Your task to perform on an android device: open app "Nova Launcher" Image 0: 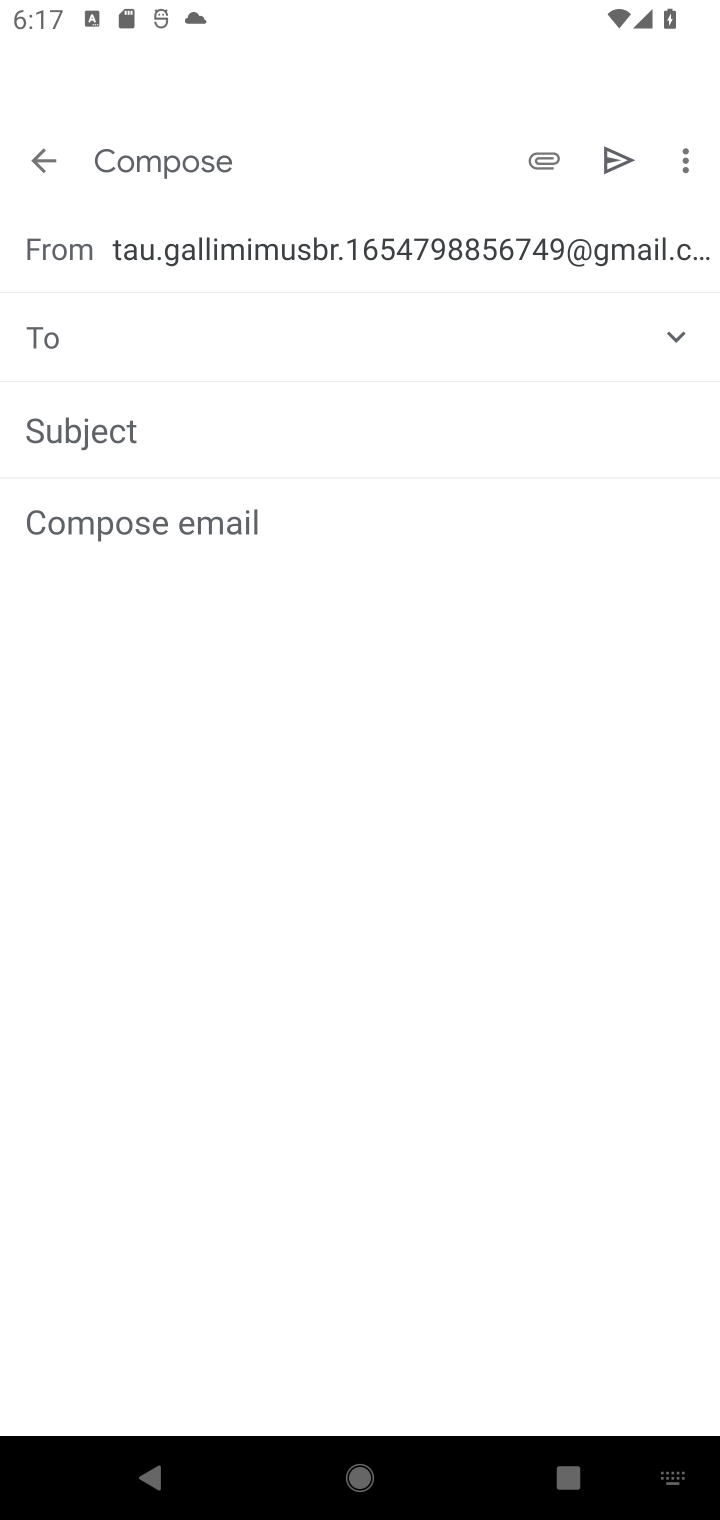
Step 0: press home button
Your task to perform on an android device: open app "Nova Launcher" Image 1: 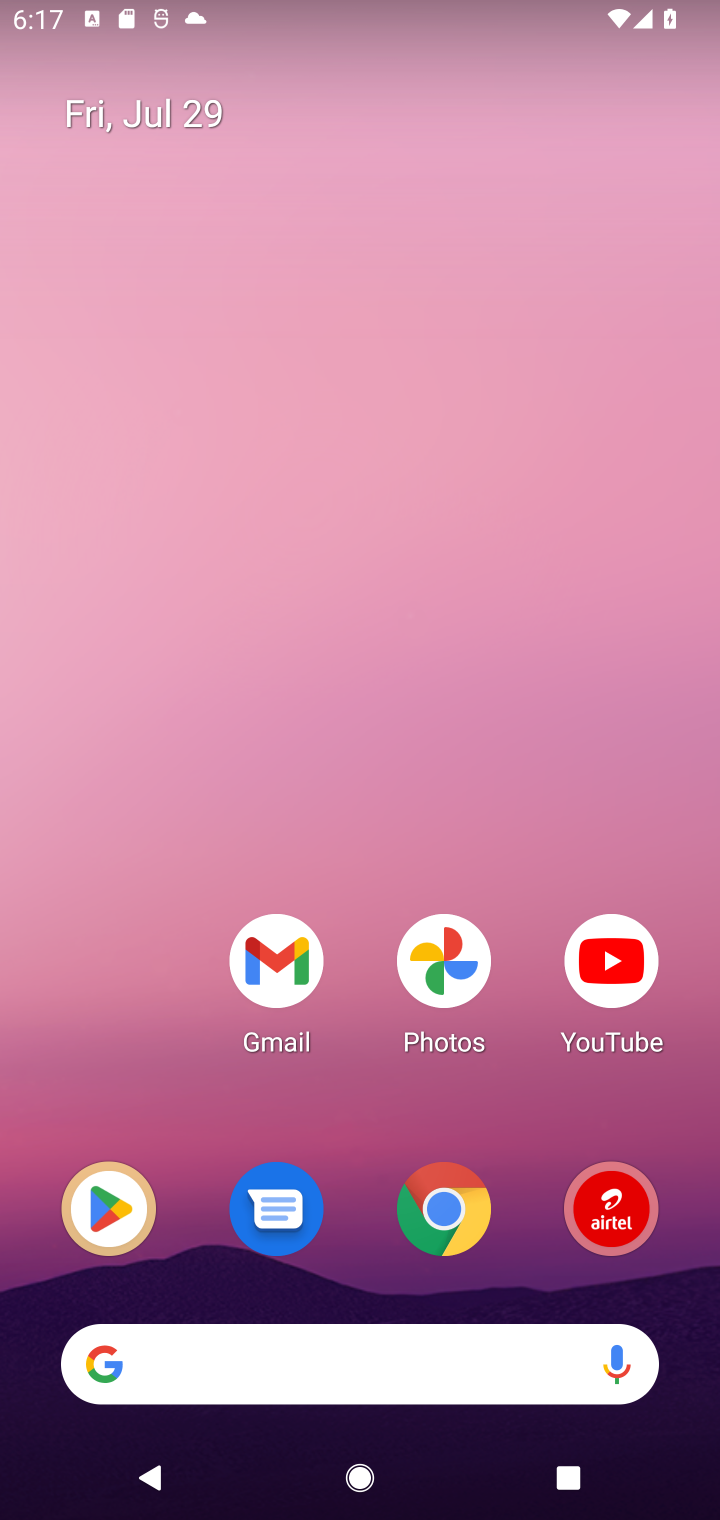
Step 1: click (89, 1218)
Your task to perform on an android device: open app "Nova Launcher" Image 2: 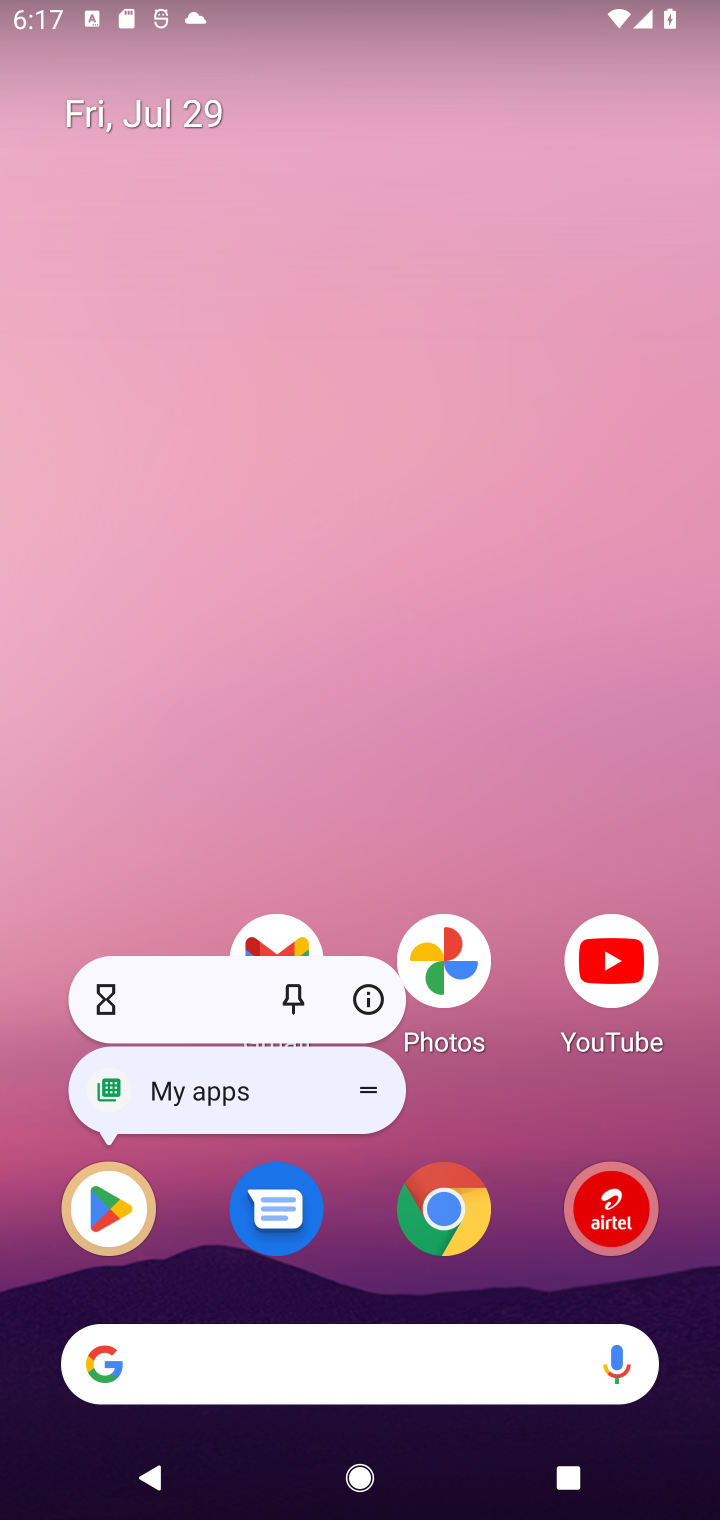
Step 2: click (89, 1218)
Your task to perform on an android device: open app "Nova Launcher" Image 3: 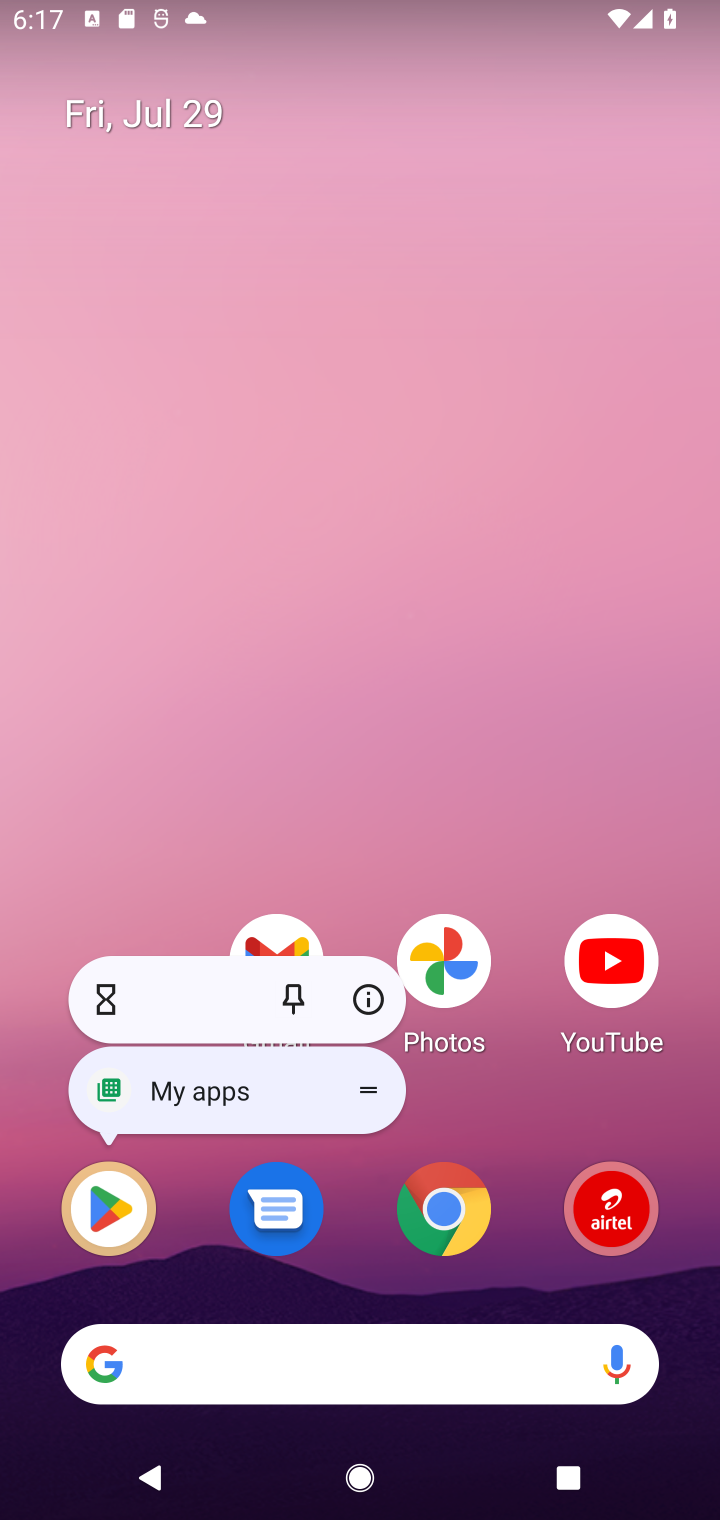
Step 3: click (97, 1214)
Your task to perform on an android device: open app "Nova Launcher" Image 4: 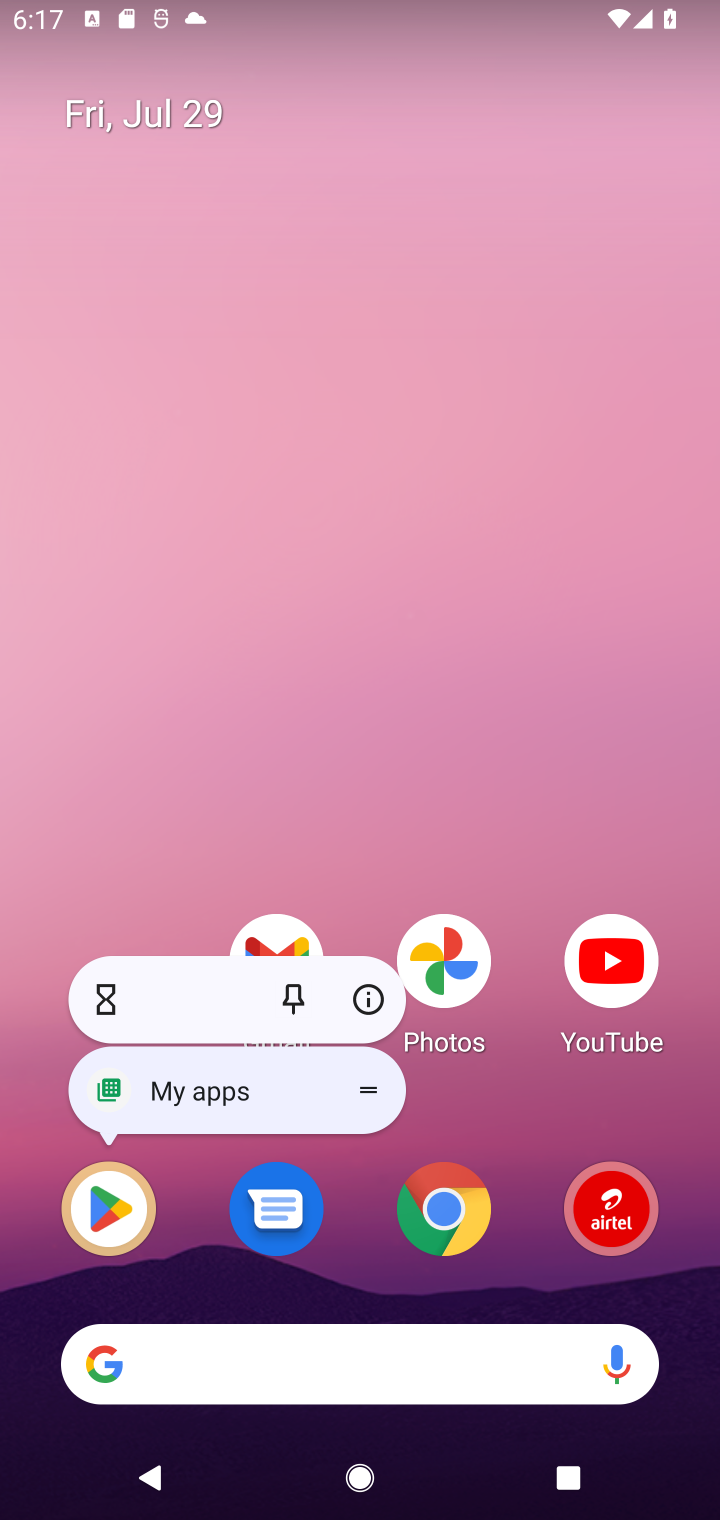
Step 4: click (97, 1214)
Your task to perform on an android device: open app "Nova Launcher" Image 5: 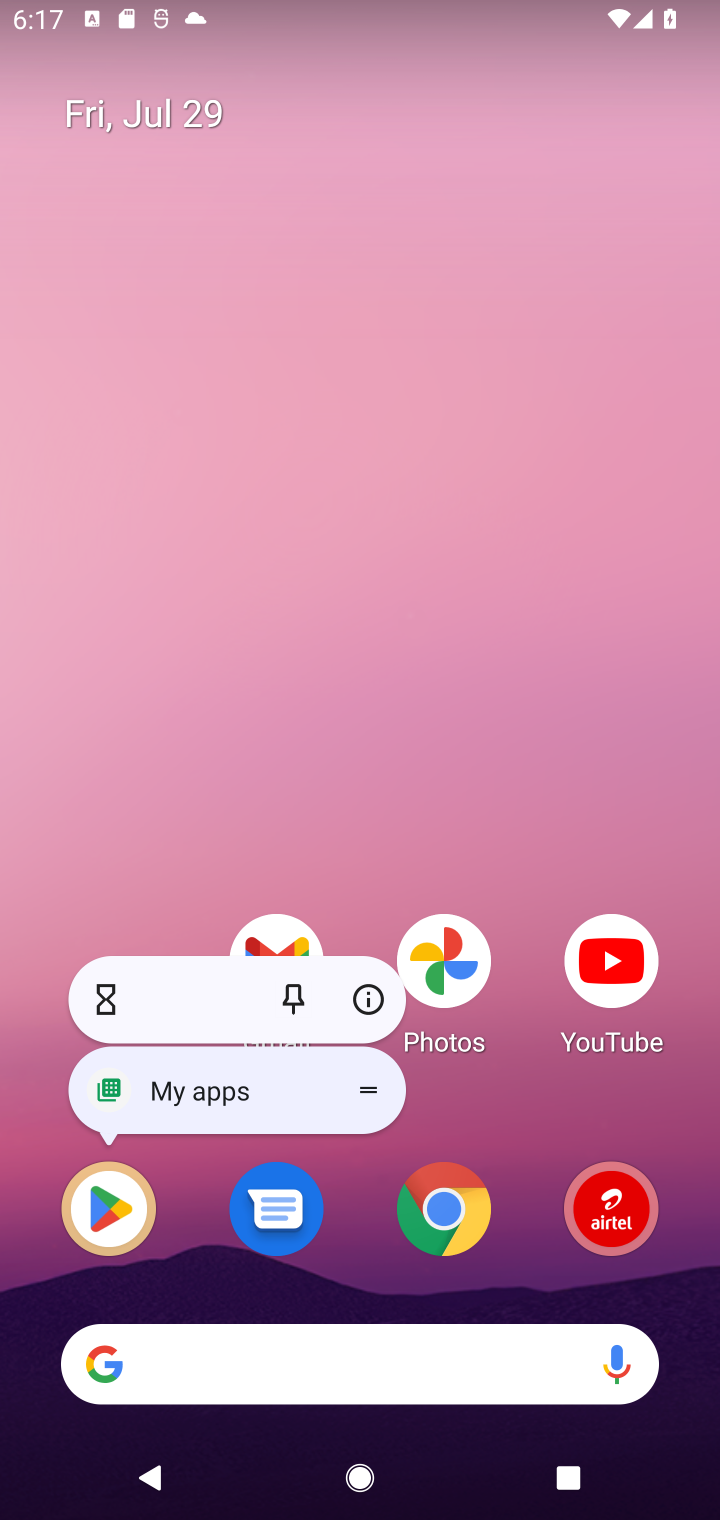
Step 5: click (97, 1217)
Your task to perform on an android device: open app "Nova Launcher" Image 6: 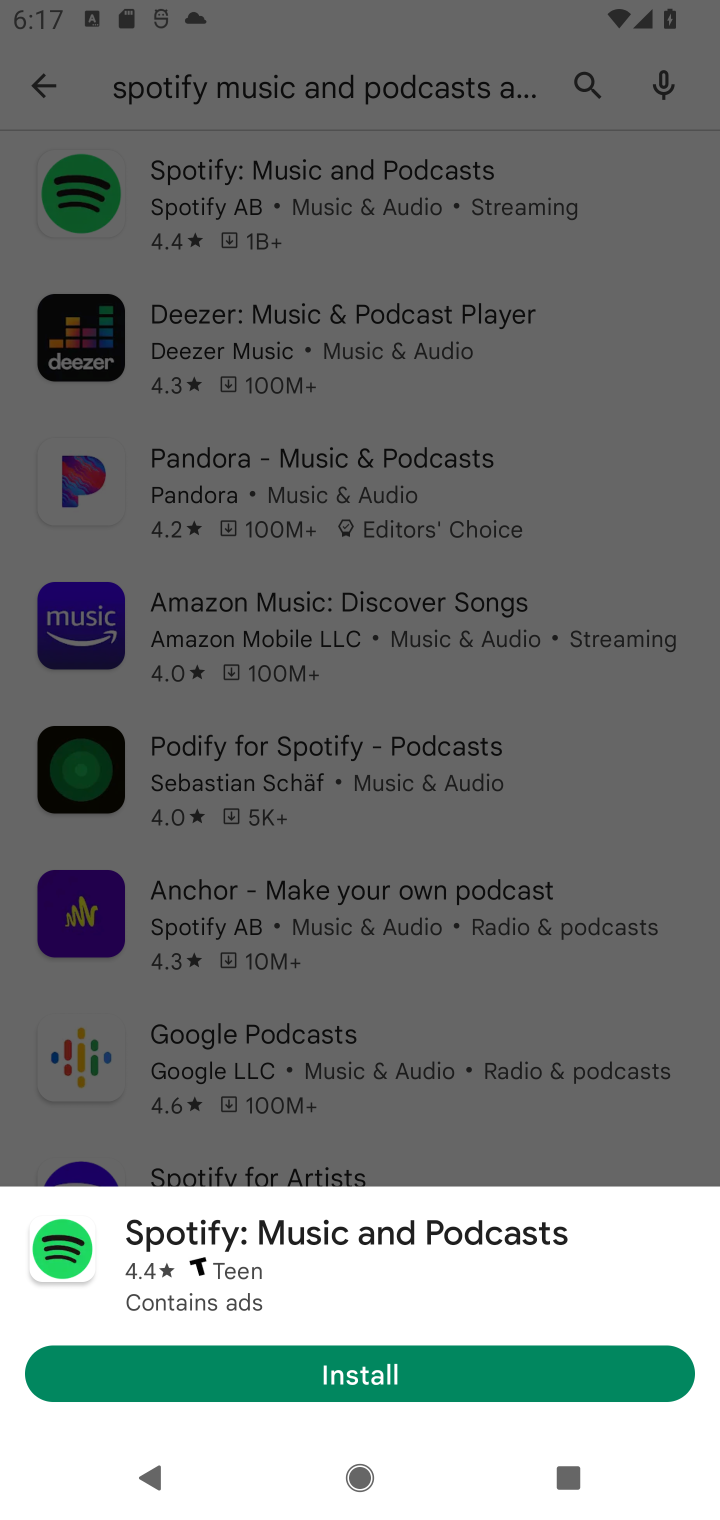
Step 6: click (584, 60)
Your task to perform on an android device: open app "Nova Launcher" Image 7: 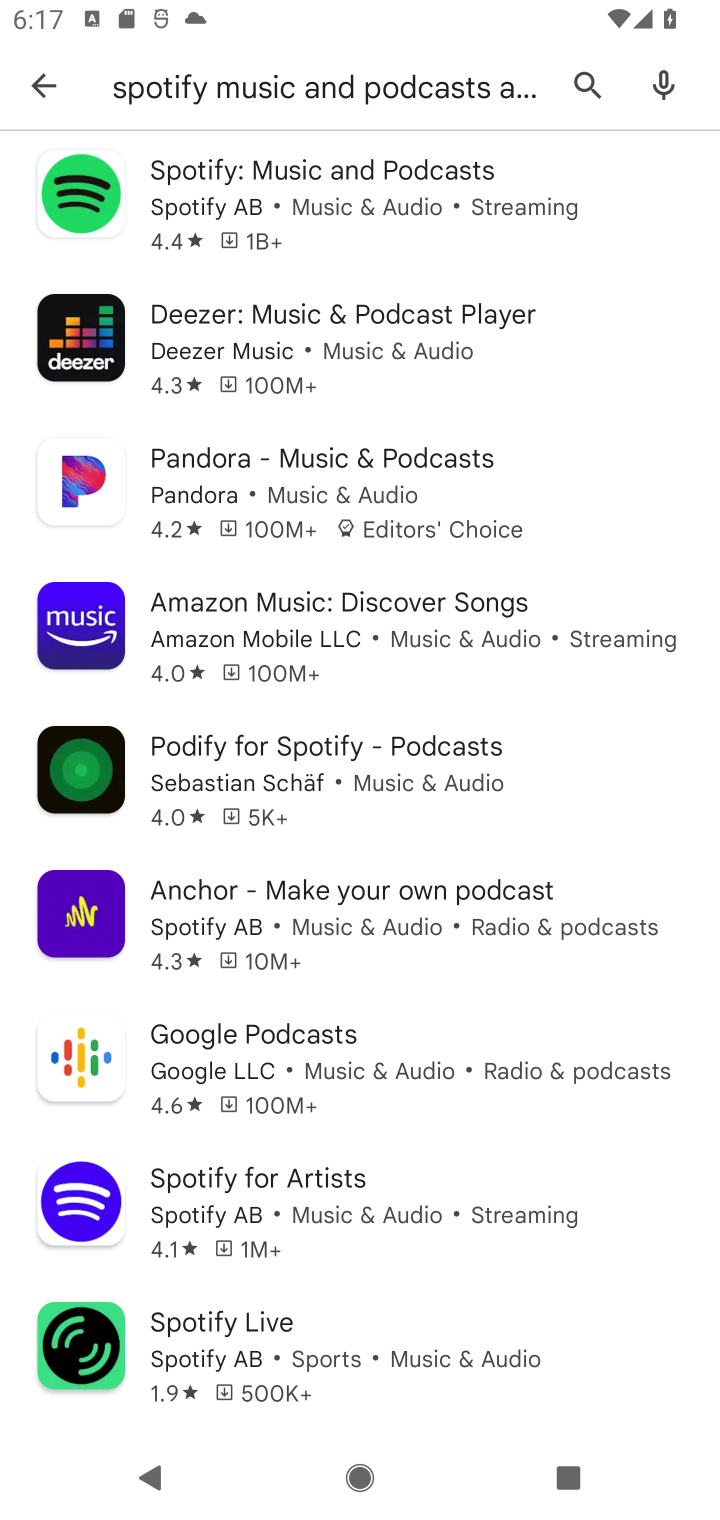
Step 7: click (578, 82)
Your task to perform on an android device: open app "Nova Launcher" Image 8: 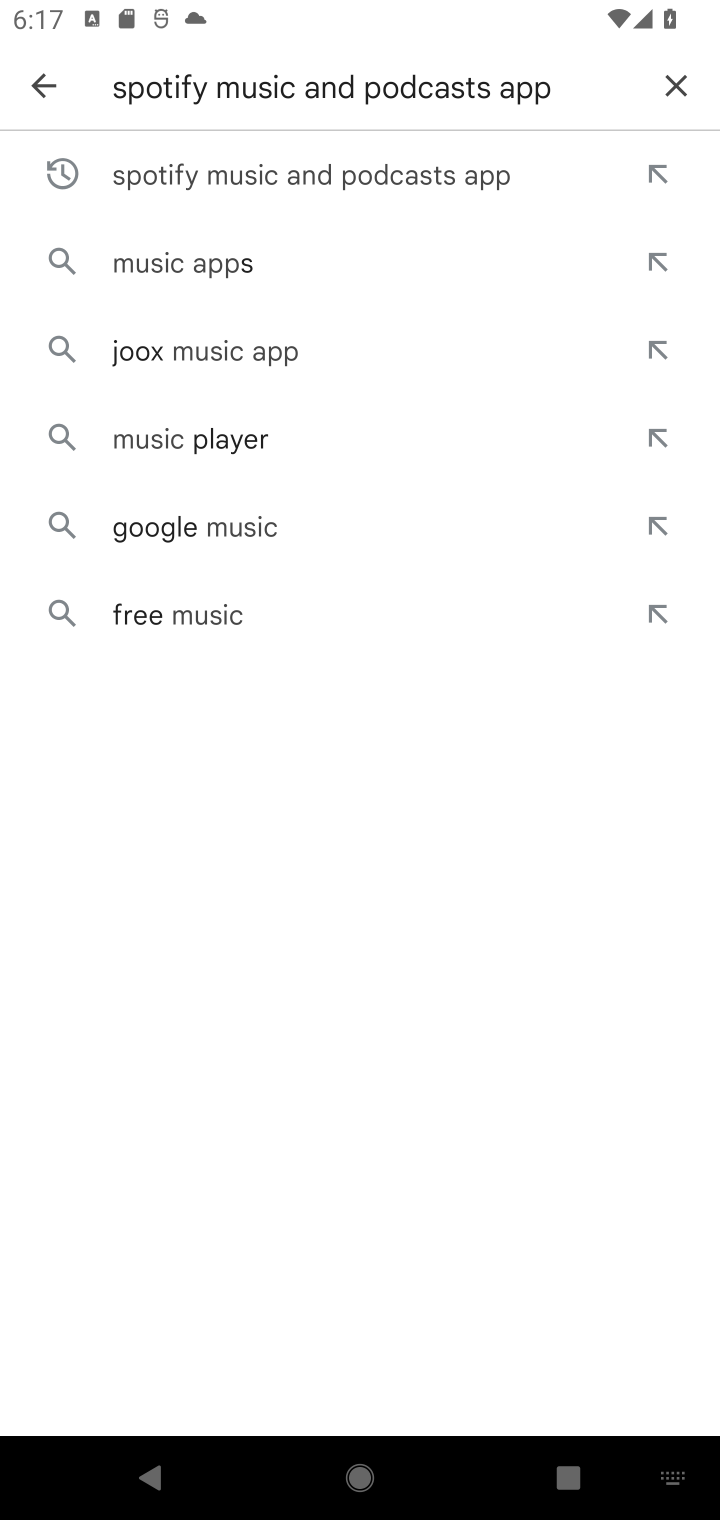
Step 8: click (663, 92)
Your task to perform on an android device: open app "Nova Launcher" Image 9: 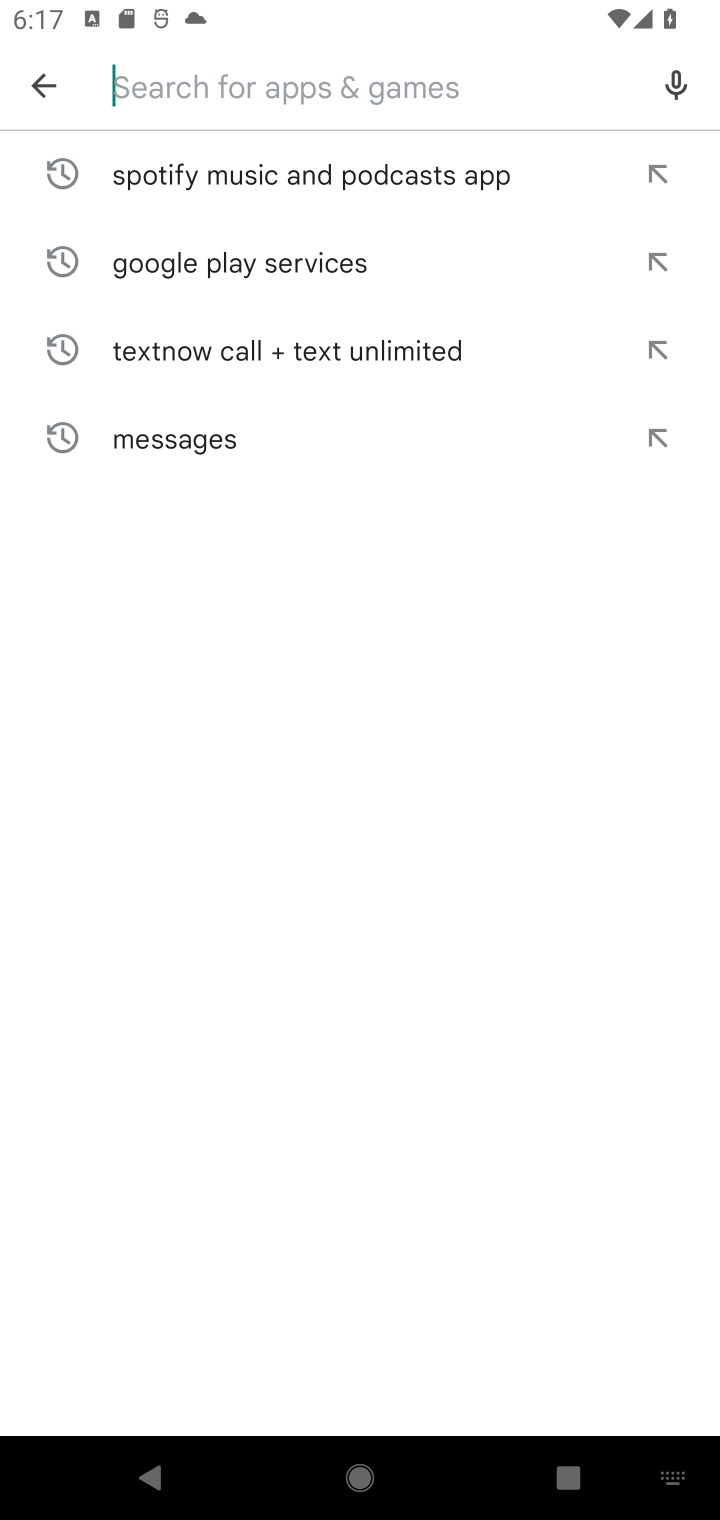
Step 9: click (383, 107)
Your task to perform on an android device: open app "Nova Launcher" Image 10: 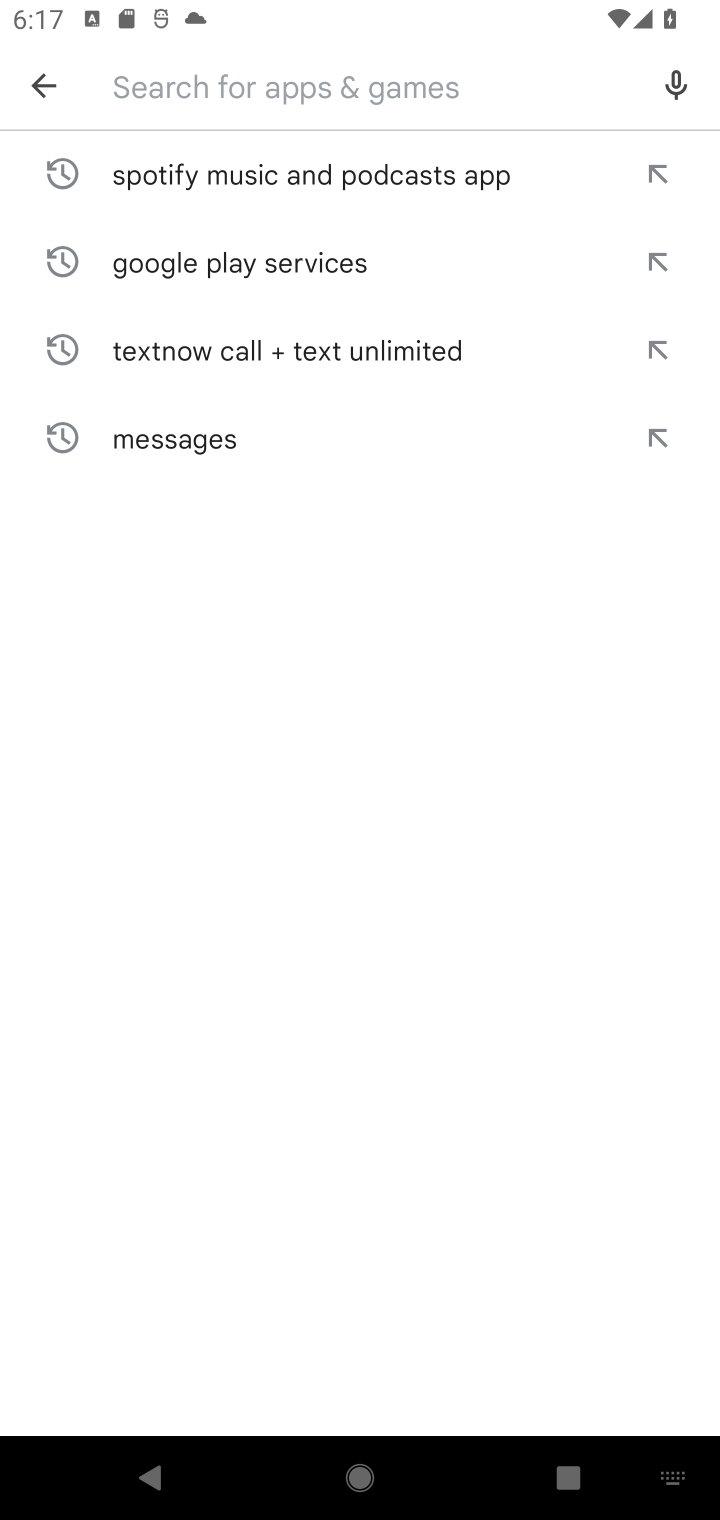
Step 10: type "Nova Launcher"
Your task to perform on an android device: open app "Nova Launcher" Image 11: 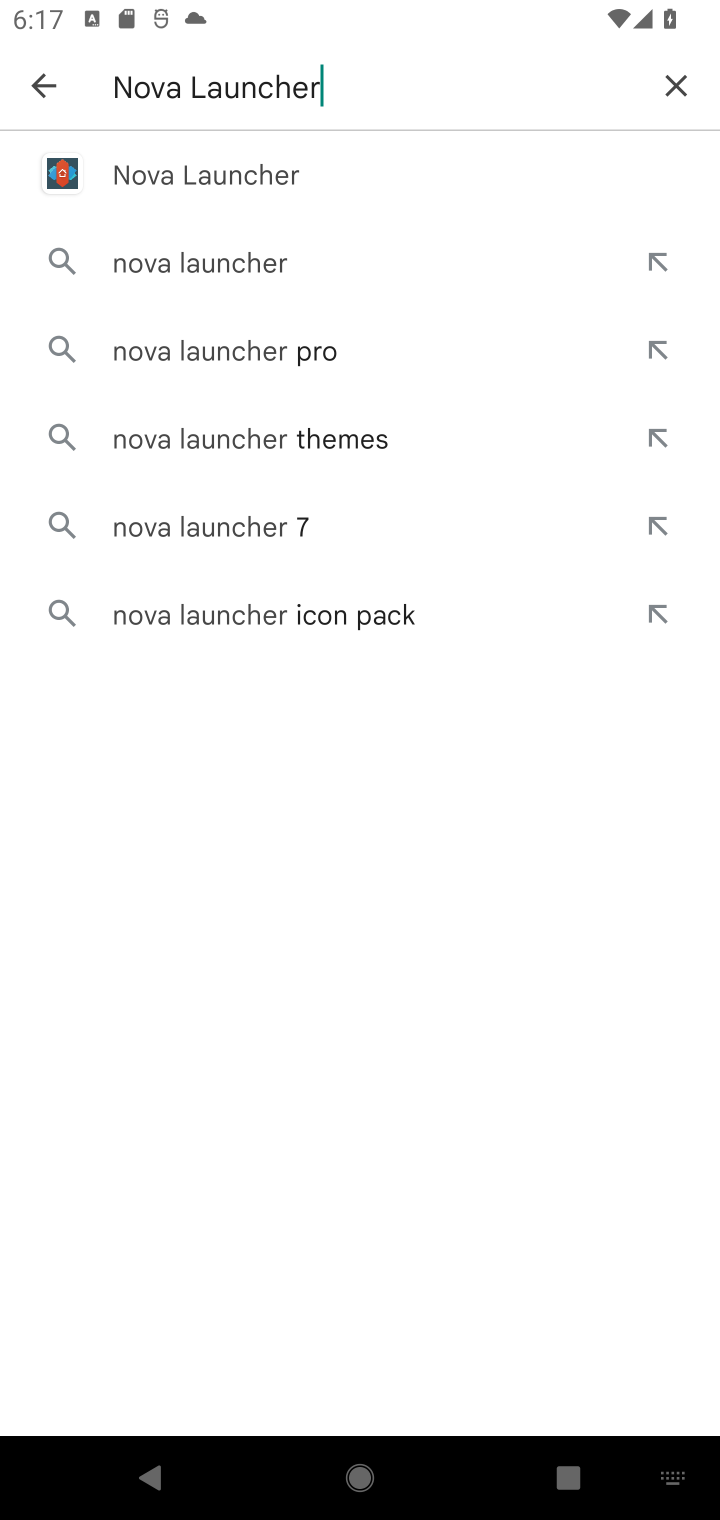
Step 11: click (219, 183)
Your task to perform on an android device: open app "Nova Launcher" Image 12: 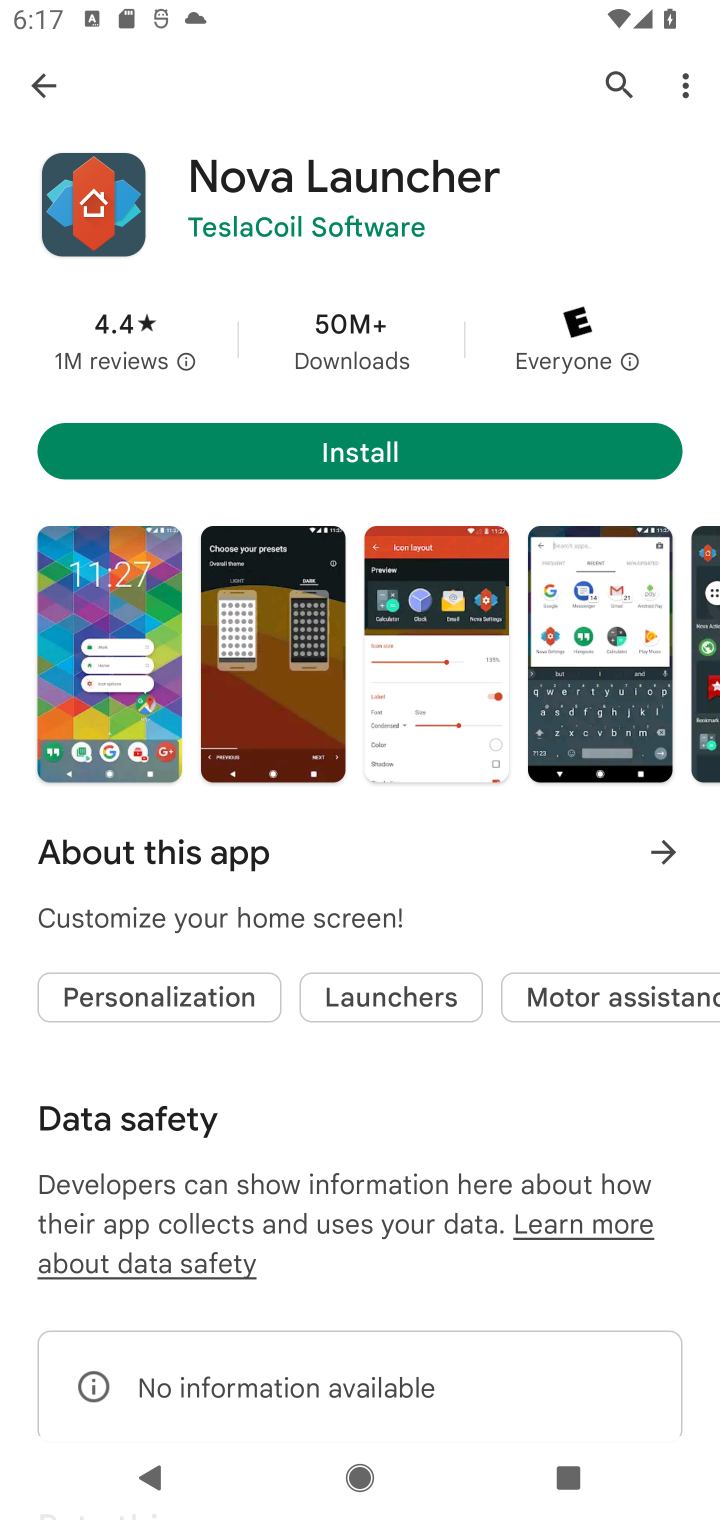
Step 12: task complete